Your task to perform on an android device: turn smart compose on in the gmail app Image 0: 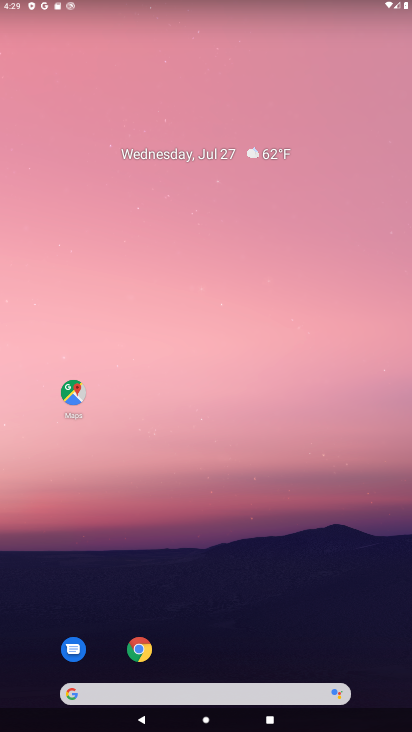
Step 0: drag from (293, 558) to (264, 171)
Your task to perform on an android device: turn smart compose on in the gmail app Image 1: 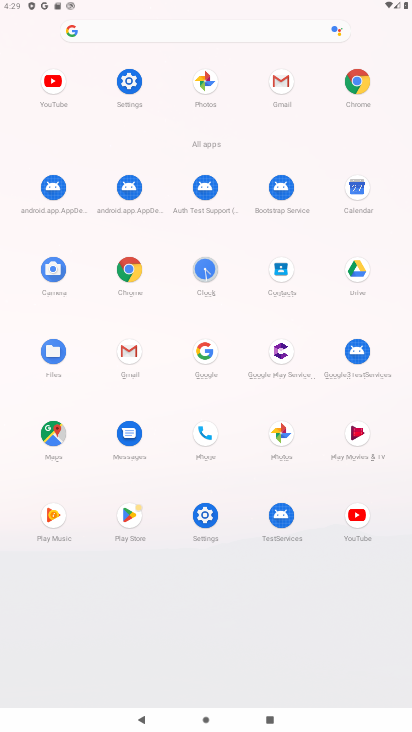
Step 1: click (124, 347)
Your task to perform on an android device: turn smart compose on in the gmail app Image 2: 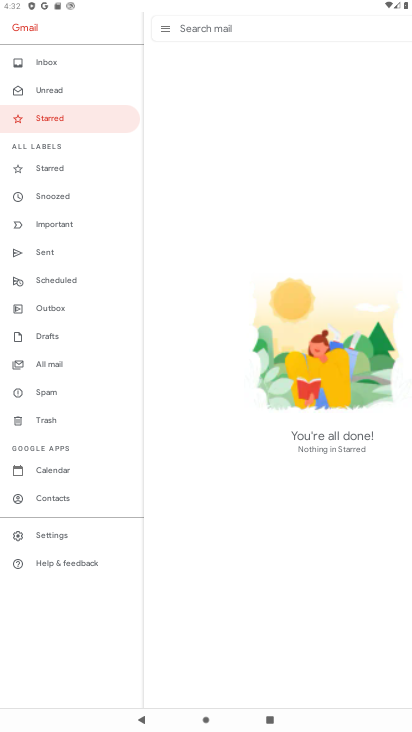
Step 2: task complete